Your task to perform on an android device: Open calendar and show me the first week of next month Image 0: 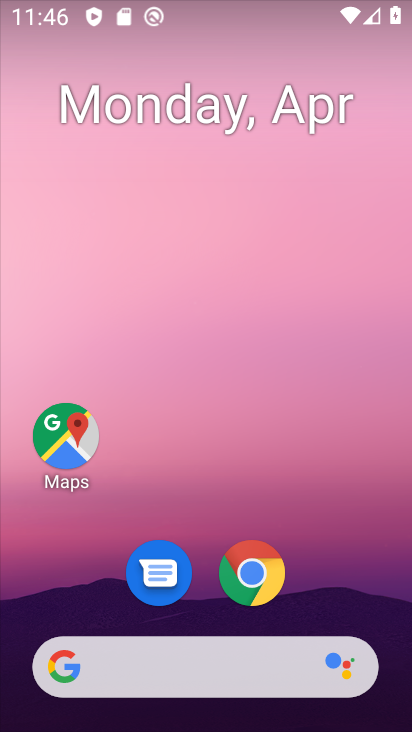
Step 0: drag from (218, 613) to (190, 23)
Your task to perform on an android device: Open calendar and show me the first week of next month Image 1: 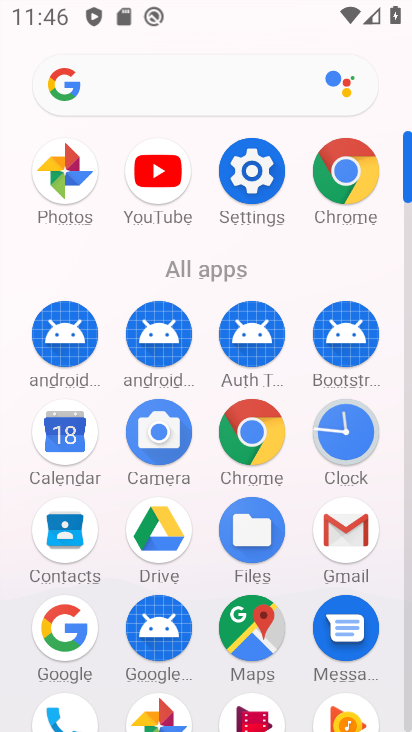
Step 1: click (61, 444)
Your task to perform on an android device: Open calendar and show me the first week of next month Image 2: 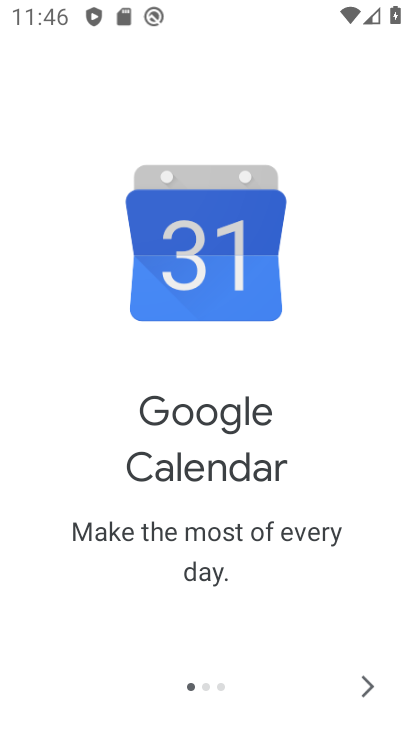
Step 2: click (360, 679)
Your task to perform on an android device: Open calendar and show me the first week of next month Image 3: 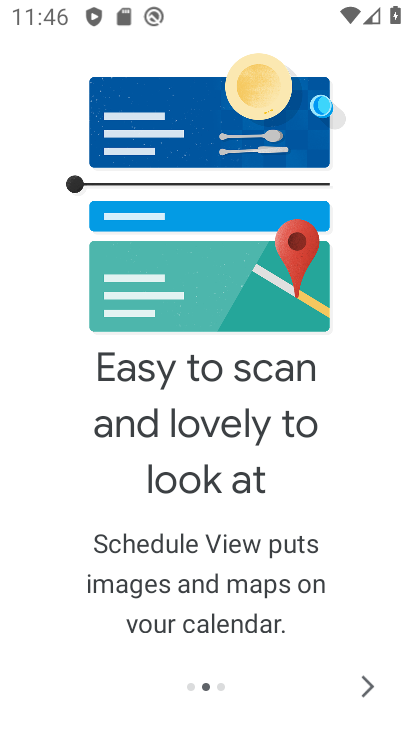
Step 3: click (360, 679)
Your task to perform on an android device: Open calendar and show me the first week of next month Image 4: 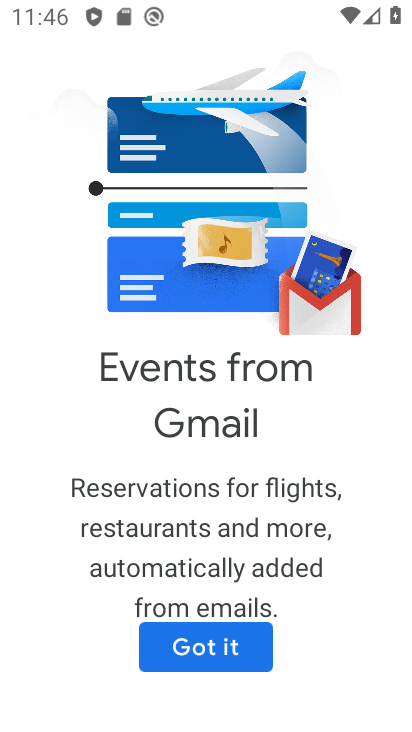
Step 4: click (251, 643)
Your task to perform on an android device: Open calendar and show me the first week of next month Image 5: 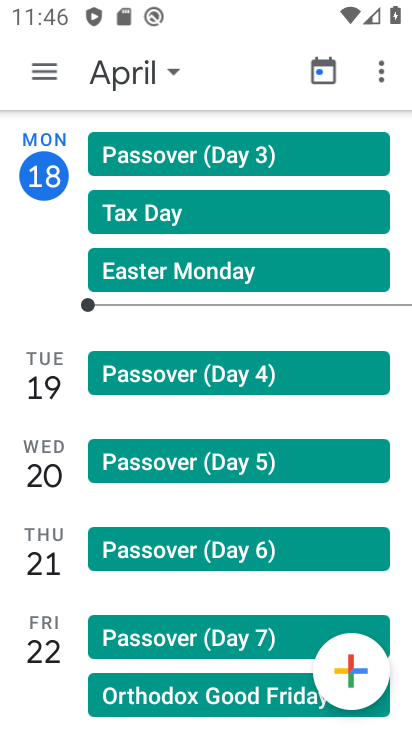
Step 5: click (33, 60)
Your task to perform on an android device: Open calendar and show me the first week of next month Image 6: 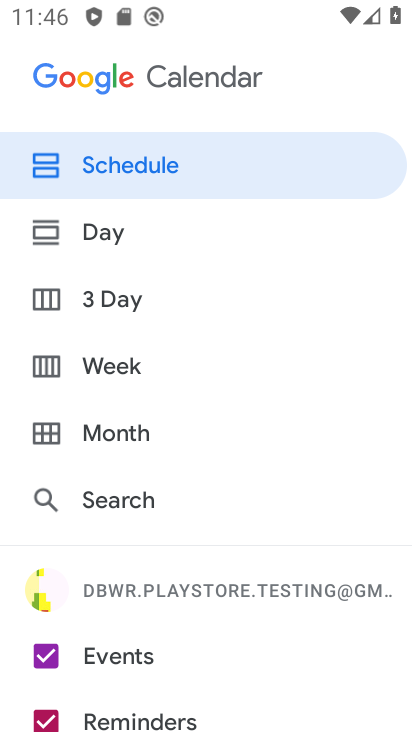
Step 6: click (109, 355)
Your task to perform on an android device: Open calendar and show me the first week of next month Image 7: 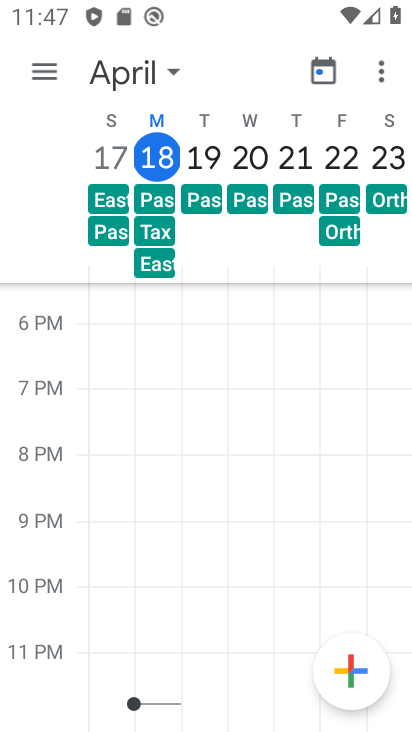
Step 7: task complete